Your task to perform on an android device: turn off smart reply in the gmail app Image 0: 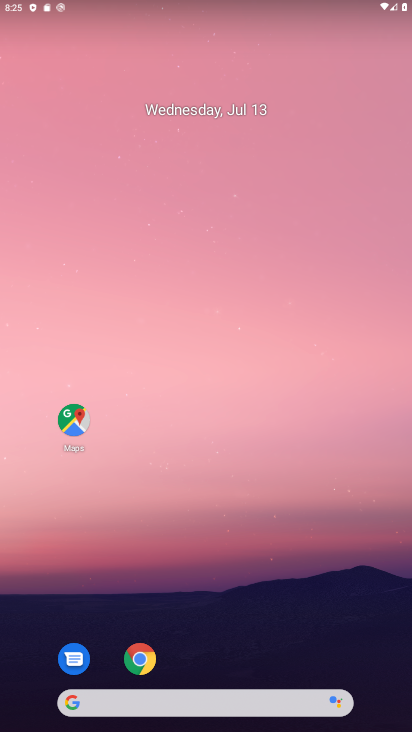
Step 0: press home button
Your task to perform on an android device: turn off smart reply in the gmail app Image 1: 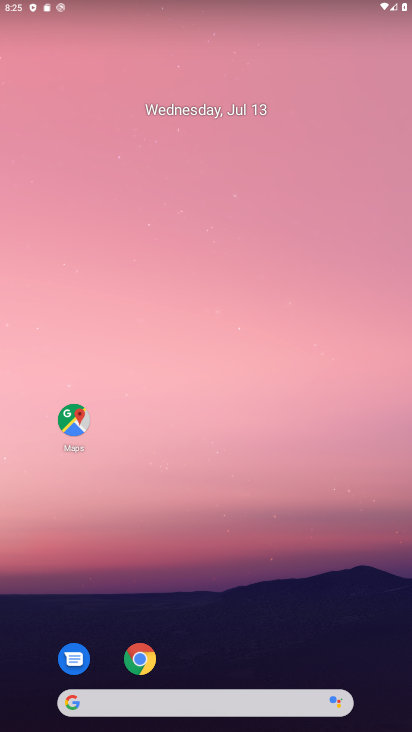
Step 1: drag from (45, 521) to (249, 31)
Your task to perform on an android device: turn off smart reply in the gmail app Image 2: 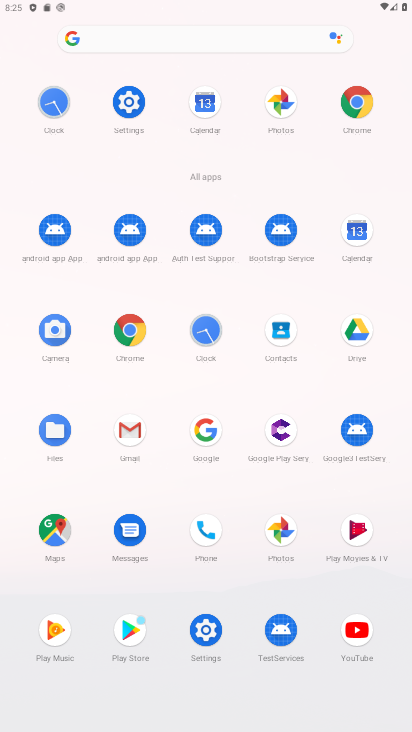
Step 2: click (131, 112)
Your task to perform on an android device: turn off smart reply in the gmail app Image 3: 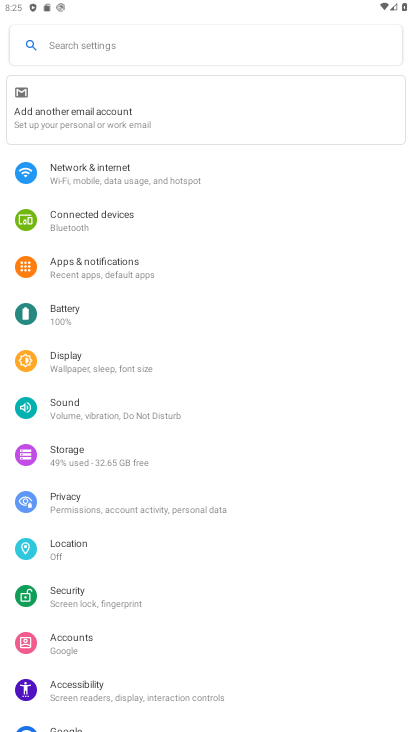
Step 3: press home button
Your task to perform on an android device: turn off smart reply in the gmail app Image 4: 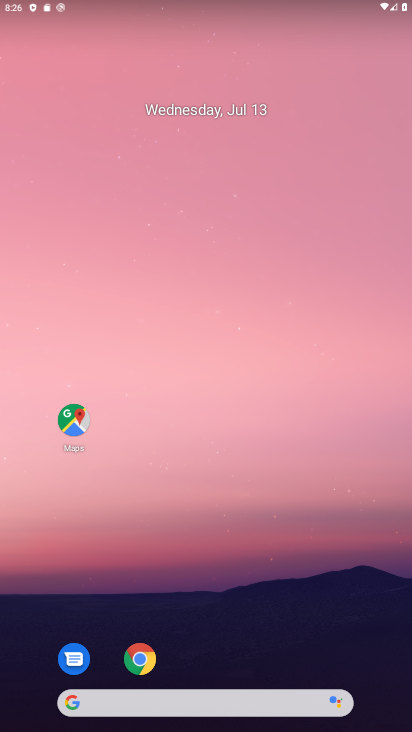
Step 4: drag from (30, 609) to (188, 23)
Your task to perform on an android device: turn off smart reply in the gmail app Image 5: 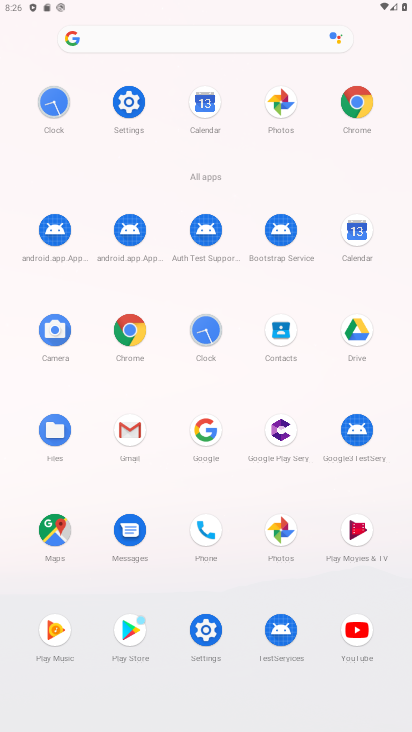
Step 5: click (130, 440)
Your task to perform on an android device: turn off smart reply in the gmail app Image 6: 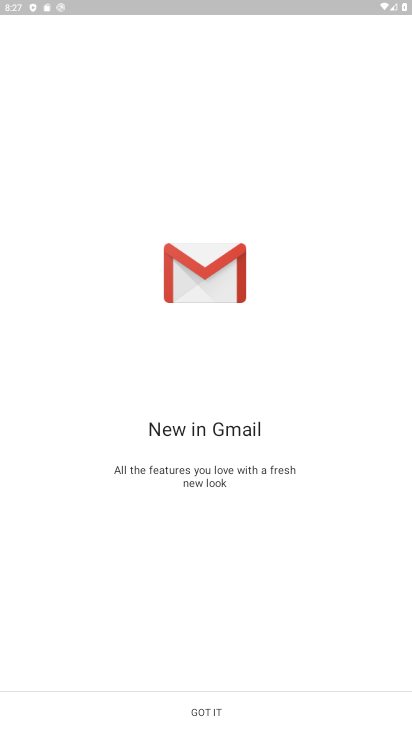
Step 6: click (198, 715)
Your task to perform on an android device: turn off smart reply in the gmail app Image 7: 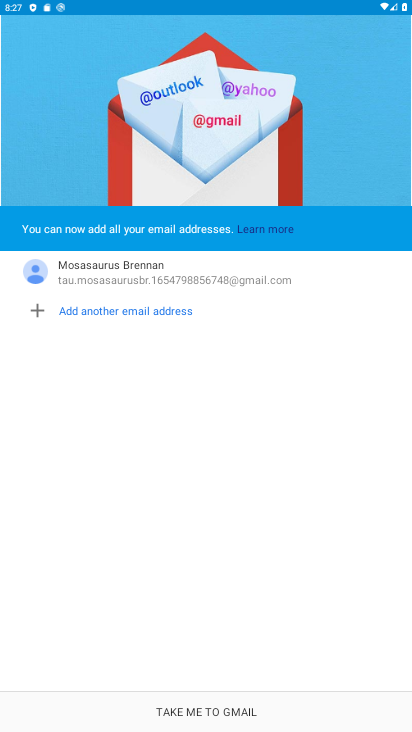
Step 7: click (193, 713)
Your task to perform on an android device: turn off smart reply in the gmail app Image 8: 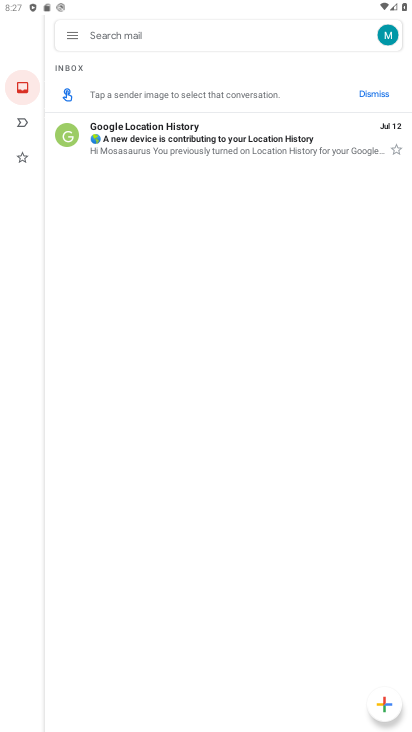
Step 8: click (75, 34)
Your task to perform on an android device: turn off smart reply in the gmail app Image 9: 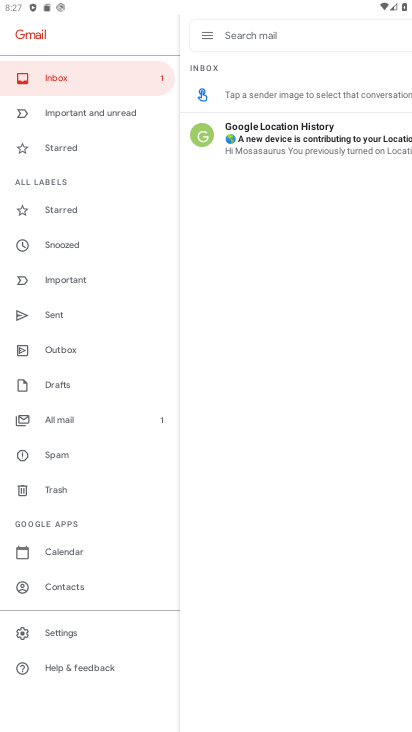
Step 9: click (81, 631)
Your task to perform on an android device: turn off smart reply in the gmail app Image 10: 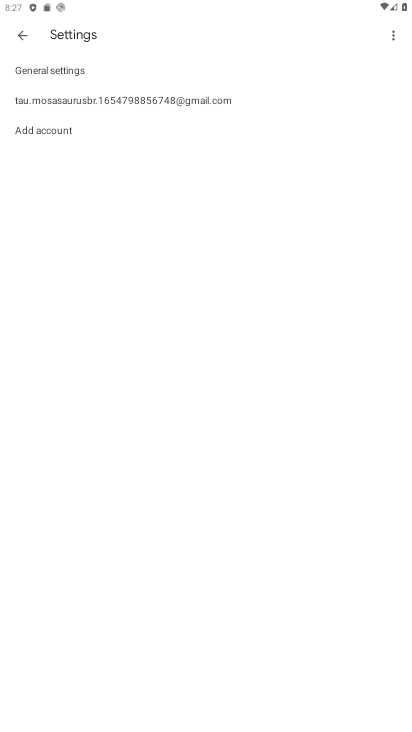
Step 10: click (47, 75)
Your task to perform on an android device: turn off smart reply in the gmail app Image 11: 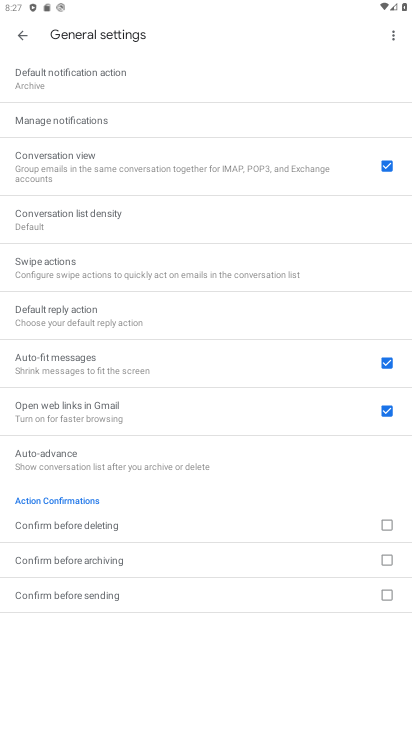
Step 11: press back button
Your task to perform on an android device: turn off smart reply in the gmail app Image 12: 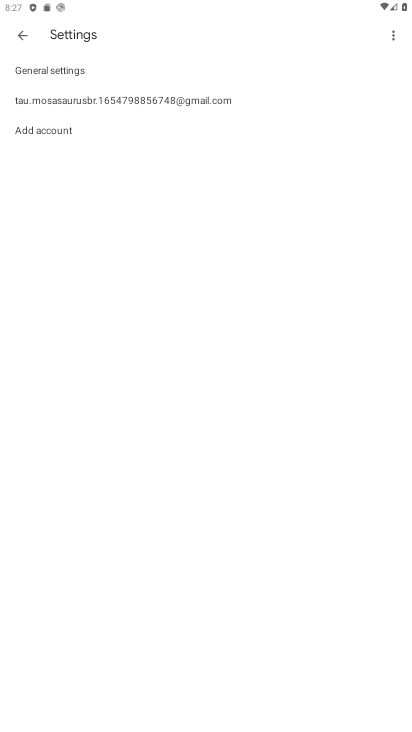
Step 12: click (68, 105)
Your task to perform on an android device: turn off smart reply in the gmail app Image 13: 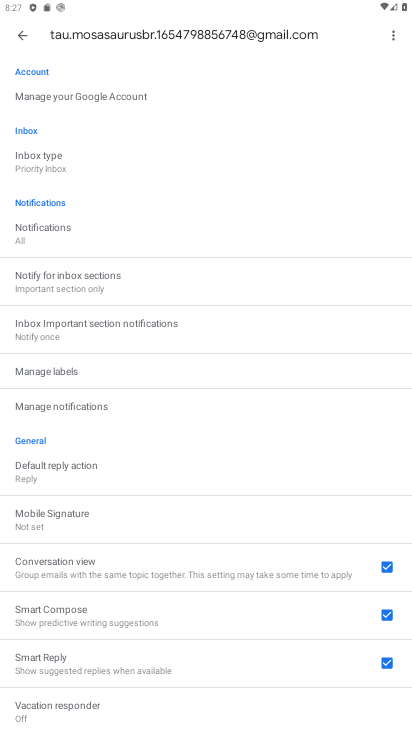
Step 13: click (385, 617)
Your task to perform on an android device: turn off smart reply in the gmail app Image 14: 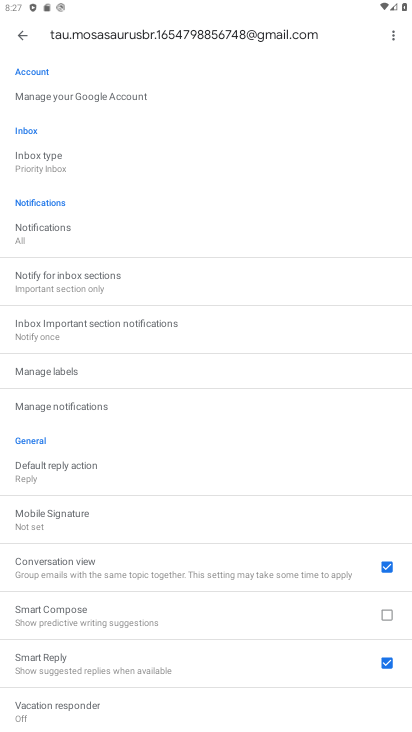
Step 14: task complete